Your task to perform on an android device: open app "Google Sheets" (install if not already installed) Image 0: 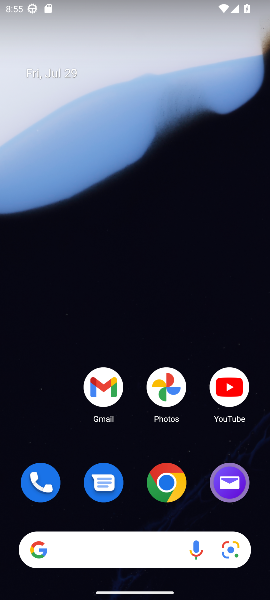
Step 0: click (117, 24)
Your task to perform on an android device: open app "Google Sheets" (install if not already installed) Image 1: 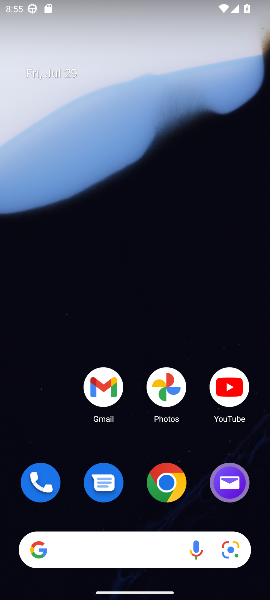
Step 1: drag from (137, 569) to (96, 75)
Your task to perform on an android device: open app "Google Sheets" (install if not already installed) Image 2: 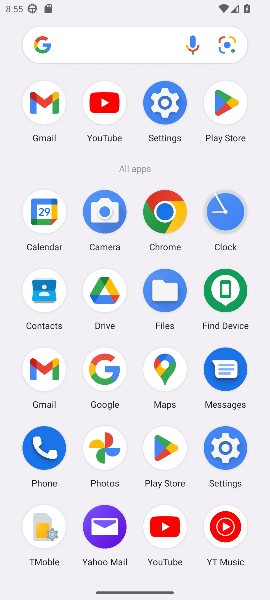
Step 2: click (225, 102)
Your task to perform on an android device: open app "Google Sheets" (install if not already installed) Image 3: 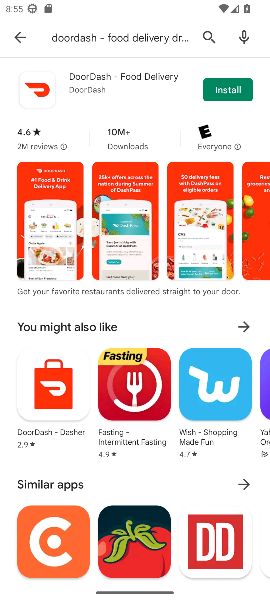
Step 3: click (203, 35)
Your task to perform on an android device: open app "Google Sheets" (install if not already installed) Image 4: 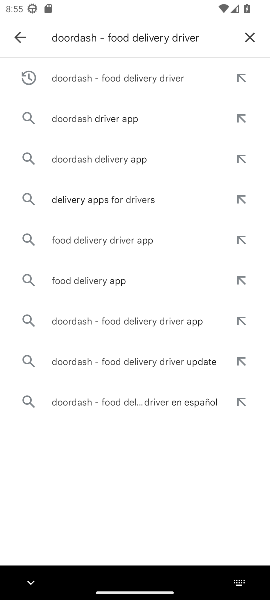
Step 4: click (252, 35)
Your task to perform on an android device: open app "Google Sheets" (install if not already installed) Image 5: 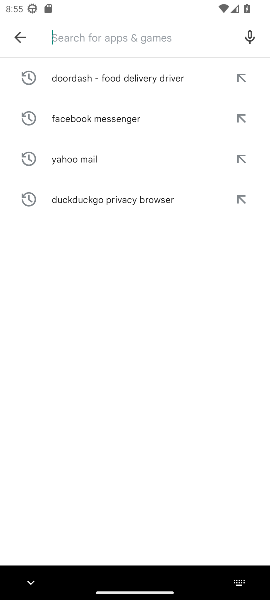
Step 5: type "Google Sheets"
Your task to perform on an android device: open app "Google Sheets" (install if not already installed) Image 6: 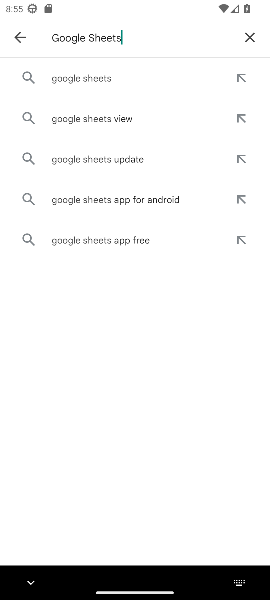
Step 6: click (101, 79)
Your task to perform on an android device: open app "Google Sheets" (install if not already installed) Image 7: 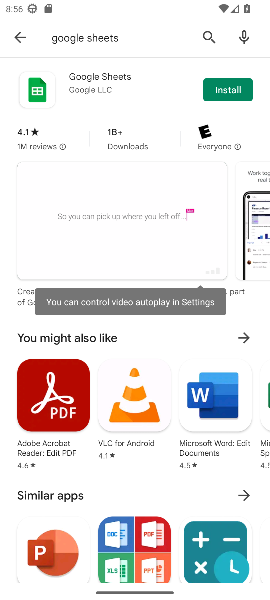
Step 7: click (233, 87)
Your task to perform on an android device: open app "Google Sheets" (install if not already installed) Image 8: 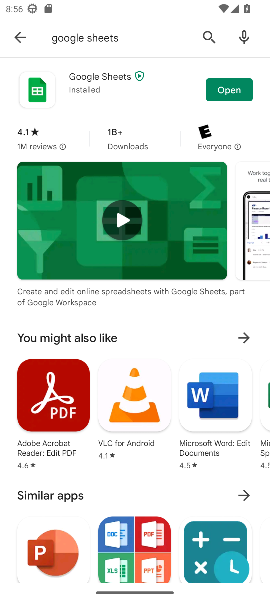
Step 8: task complete